Your task to perform on an android device: toggle pop-ups in chrome Image 0: 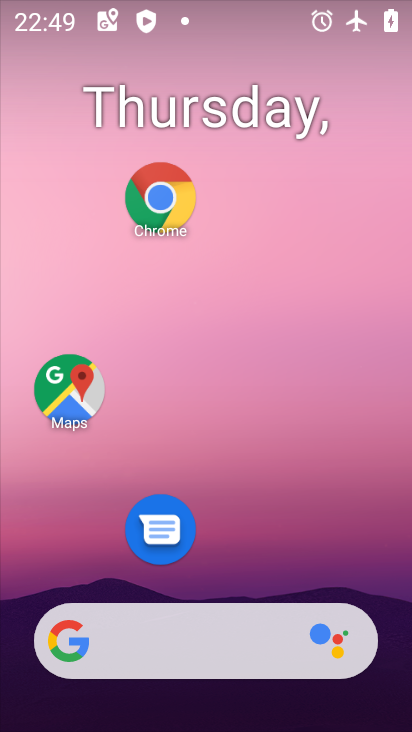
Step 0: click (164, 204)
Your task to perform on an android device: toggle pop-ups in chrome Image 1: 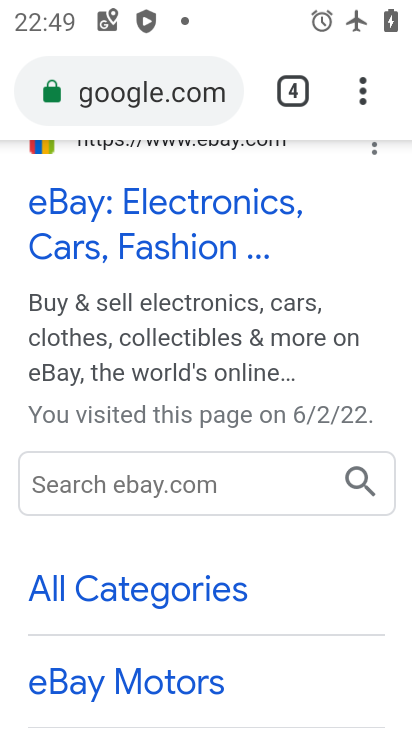
Step 1: click (363, 91)
Your task to perform on an android device: toggle pop-ups in chrome Image 2: 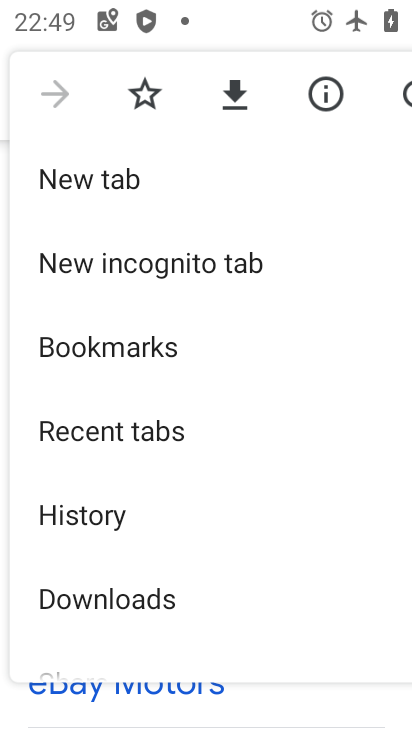
Step 2: drag from (279, 524) to (273, 208)
Your task to perform on an android device: toggle pop-ups in chrome Image 3: 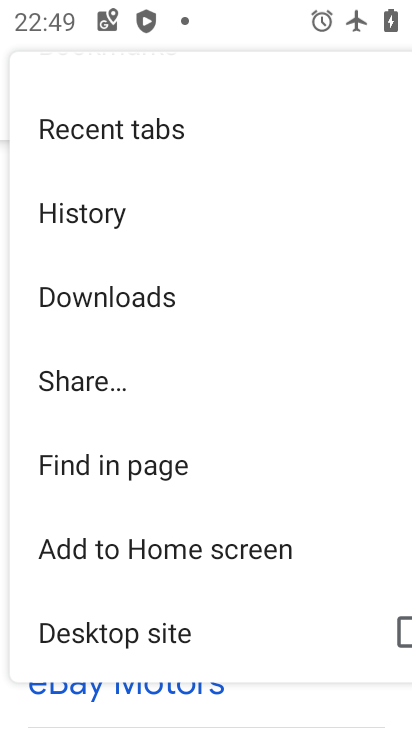
Step 3: drag from (228, 590) to (231, 124)
Your task to perform on an android device: toggle pop-ups in chrome Image 4: 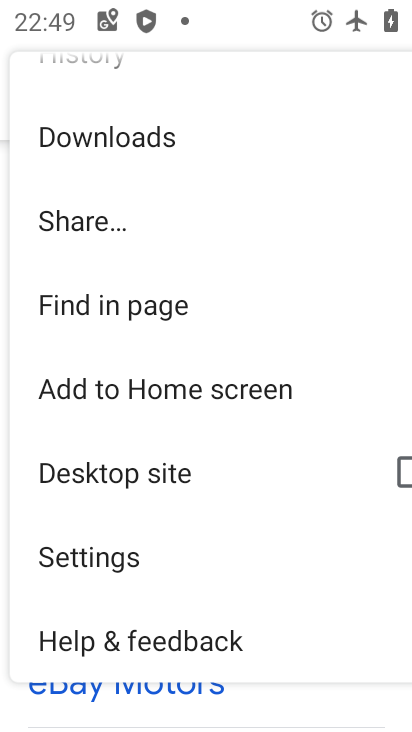
Step 4: click (116, 556)
Your task to perform on an android device: toggle pop-ups in chrome Image 5: 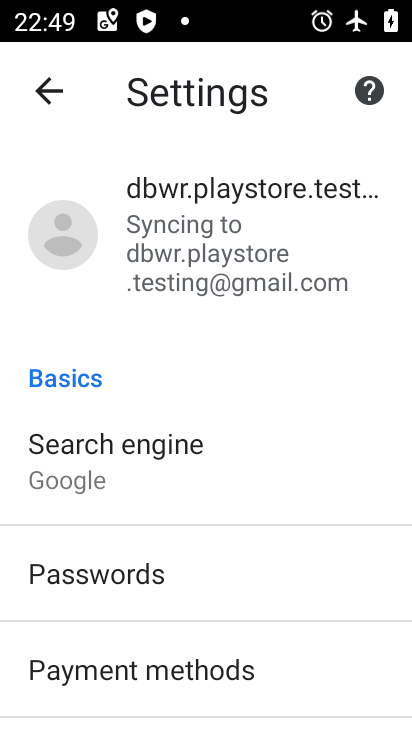
Step 5: drag from (229, 575) to (217, 185)
Your task to perform on an android device: toggle pop-ups in chrome Image 6: 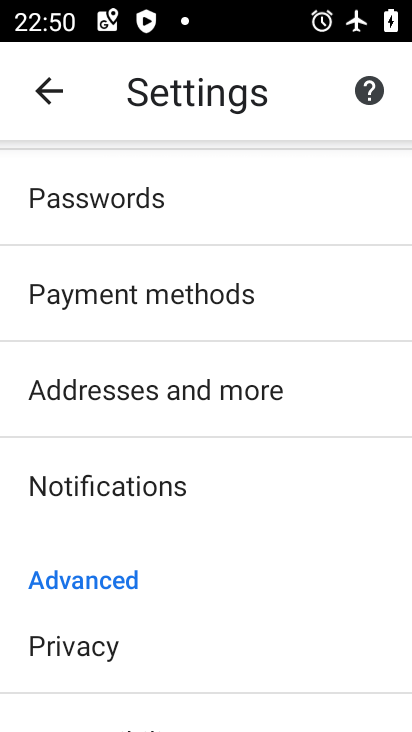
Step 6: drag from (228, 564) to (224, 151)
Your task to perform on an android device: toggle pop-ups in chrome Image 7: 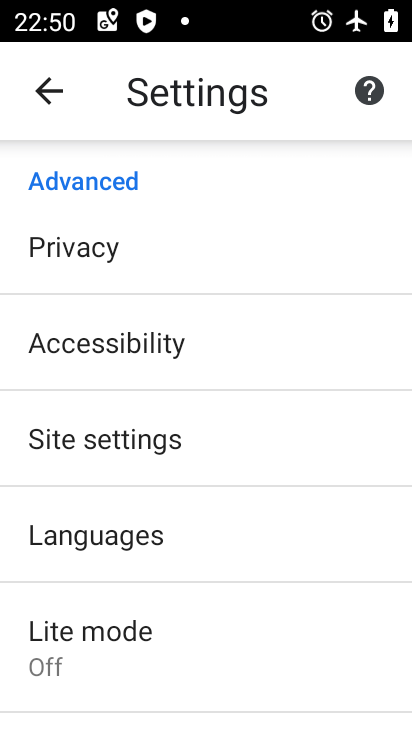
Step 7: drag from (227, 606) to (226, 162)
Your task to perform on an android device: toggle pop-ups in chrome Image 8: 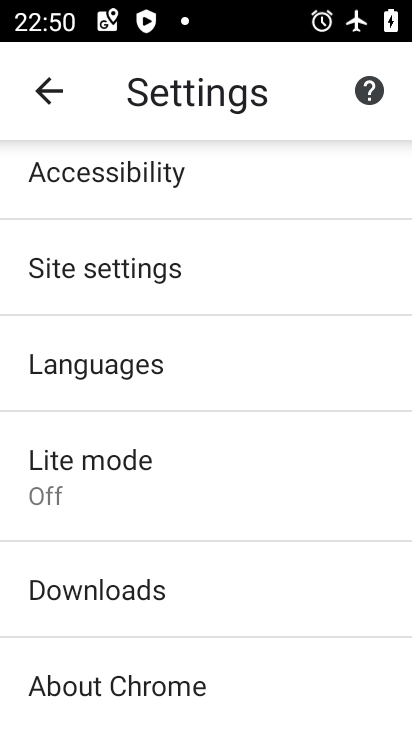
Step 8: click (124, 256)
Your task to perform on an android device: toggle pop-ups in chrome Image 9: 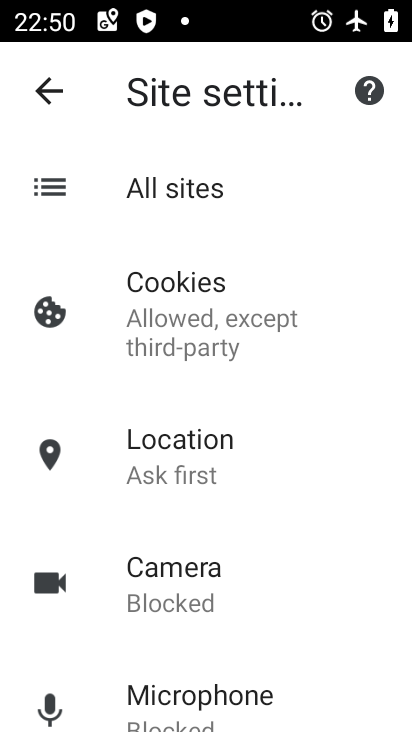
Step 9: drag from (246, 578) to (235, 170)
Your task to perform on an android device: toggle pop-ups in chrome Image 10: 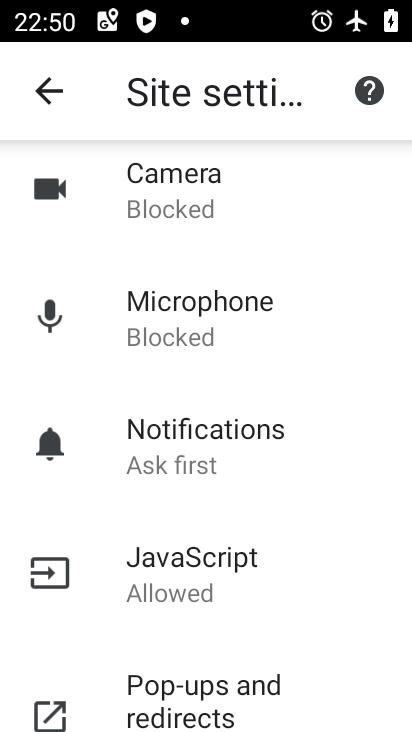
Step 10: click (198, 695)
Your task to perform on an android device: toggle pop-ups in chrome Image 11: 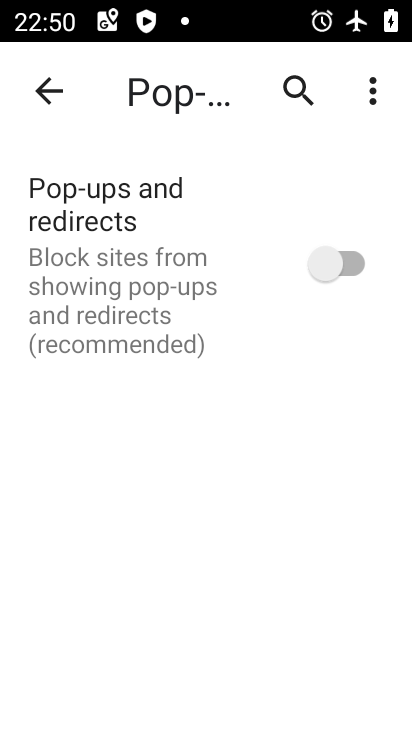
Step 11: click (308, 266)
Your task to perform on an android device: toggle pop-ups in chrome Image 12: 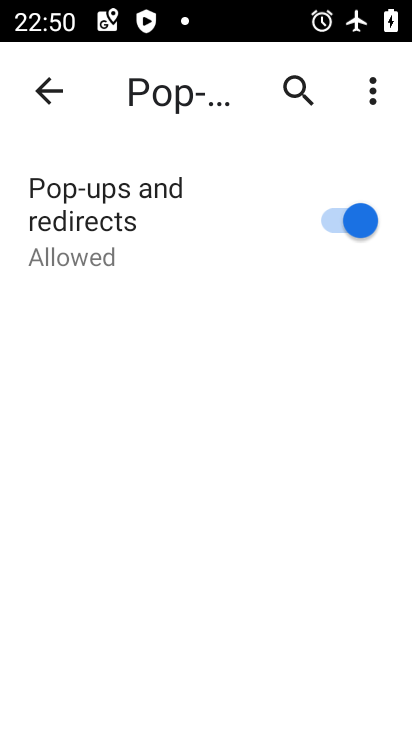
Step 12: task complete